Your task to perform on an android device: turn pop-ups on in chrome Image 0: 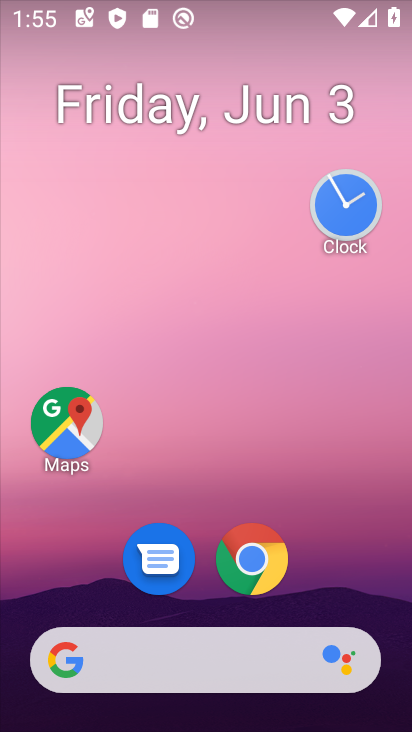
Step 0: click (258, 550)
Your task to perform on an android device: turn pop-ups on in chrome Image 1: 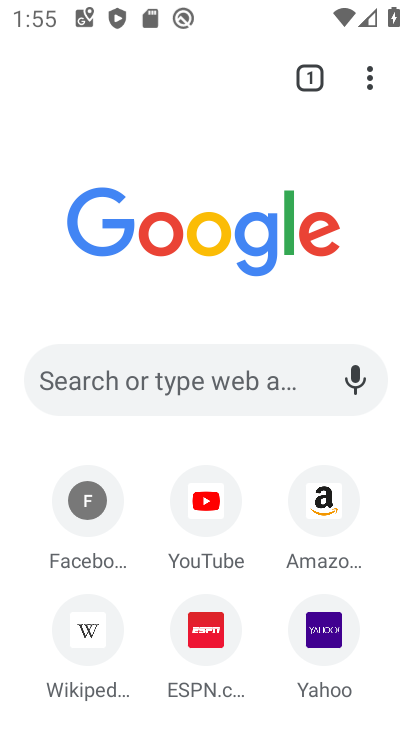
Step 1: click (364, 68)
Your task to perform on an android device: turn pop-ups on in chrome Image 2: 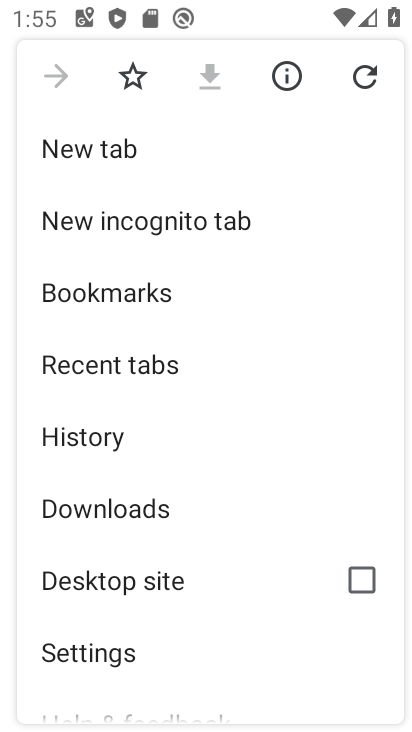
Step 2: drag from (281, 594) to (251, 417)
Your task to perform on an android device: turn pop-ups on in chrome Image 3: 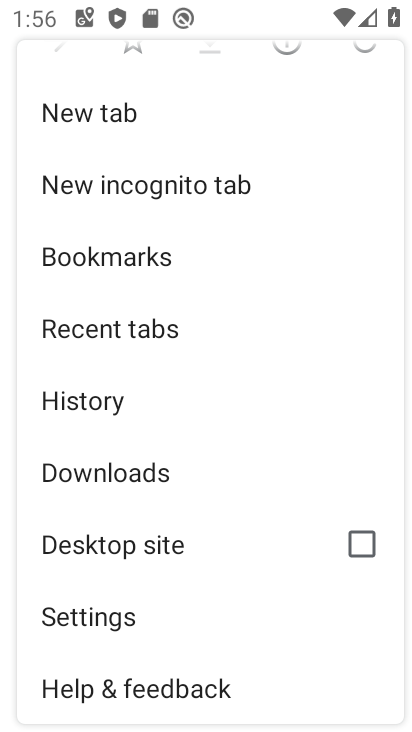
Step 3: click (136, 608)
Your task to perform on an android device: turn pop-ups on in chrome Image 4: 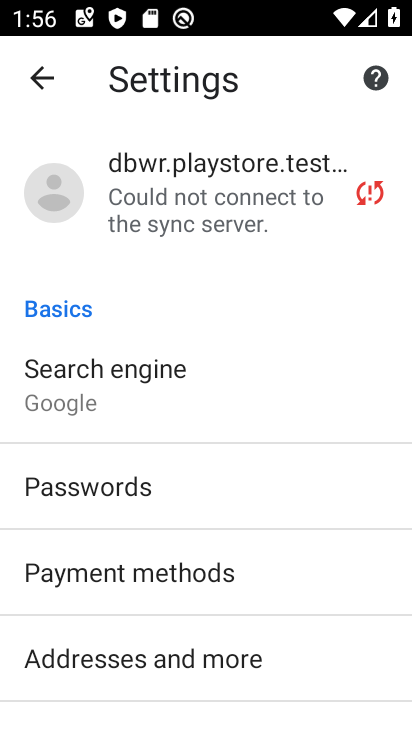
Step 4: drag from (211, 541) to (199, 307)
Your task to perform on an android device: turn pop-ups on in chrome Image 5: 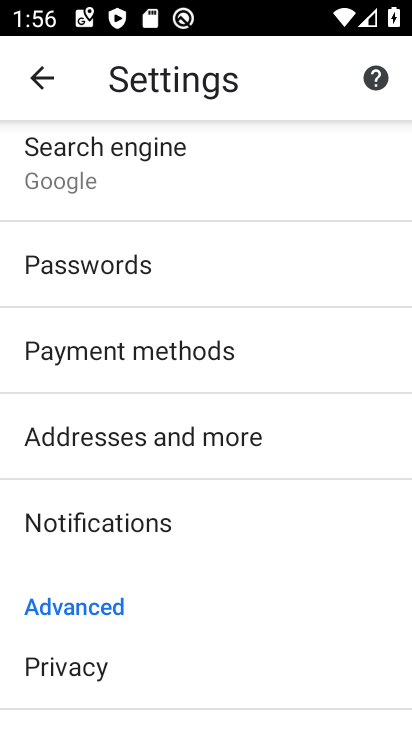
Step 5: drag from (218, 636) to (174, 365)
Your task to perform on an android device: turn pop-ups on in chrome Image 6: 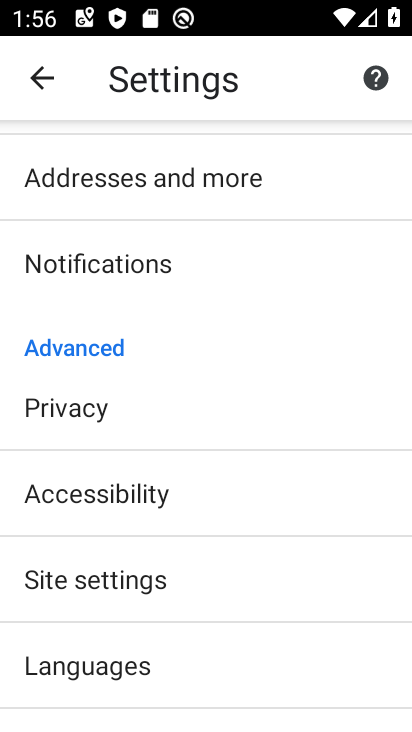
Step 6: click (186, 573)
Your task to perform on an android device: turn pop-ups on in chrome Image 7: 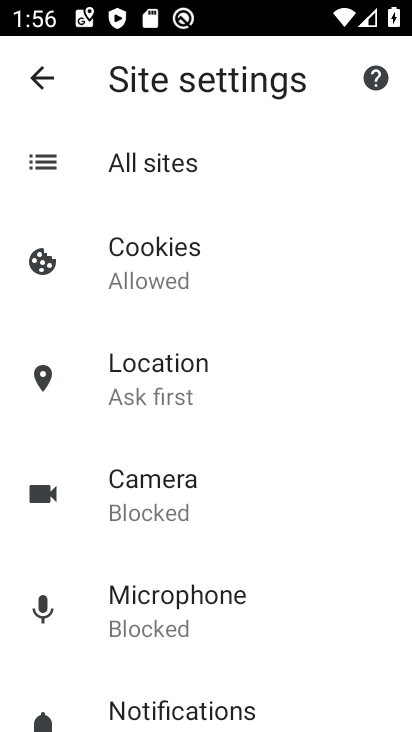
Step 7: drag from (221, 651) to (195, 427)
Your task to perform on an android device: turn pop-ups on in chrome Image 8: 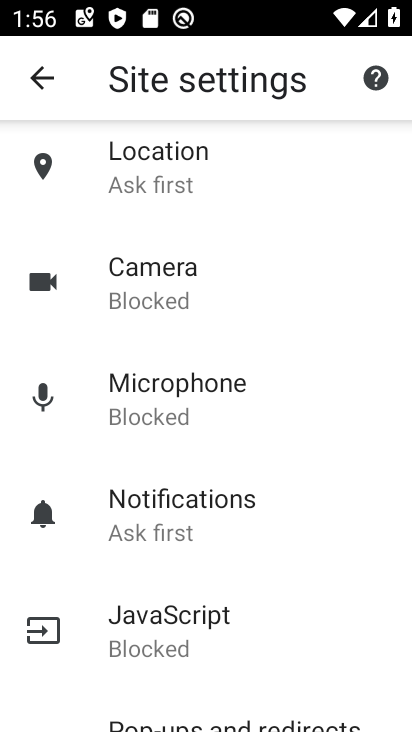
Step 8: drag from (226, 666) to (197, 486)
Your task to perform on an android device: turn pop-ups on in chrome Image 9: 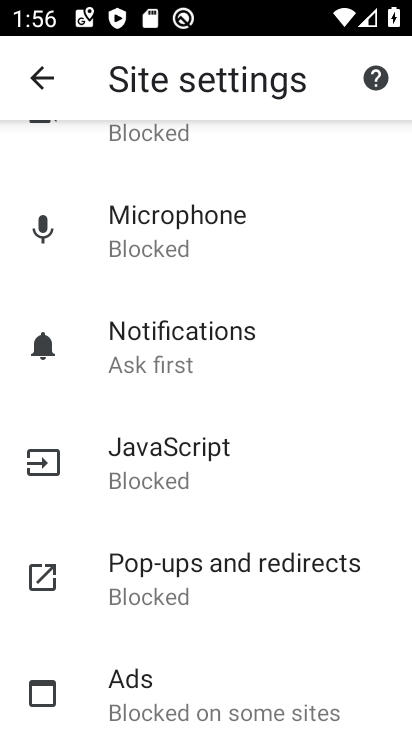
Step 9: click (167, 565)
Your task to perform on an android device: turn pop-ups on in chrome Image 10: 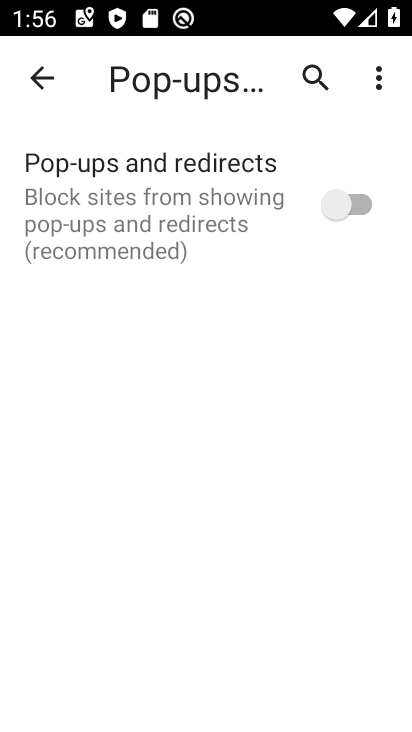
Step 10: click (338, 205)
Your task to perform on an android device: turn pop-ups on in chrome Image 11: 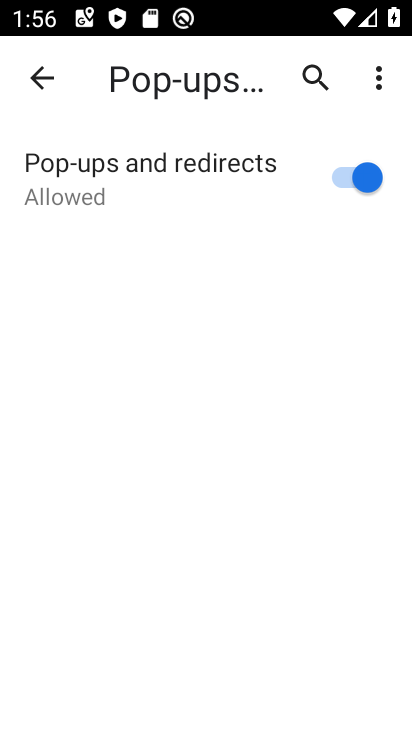
Step 11: task complete